Your task to perform on an android device: check out phone information Image 0: 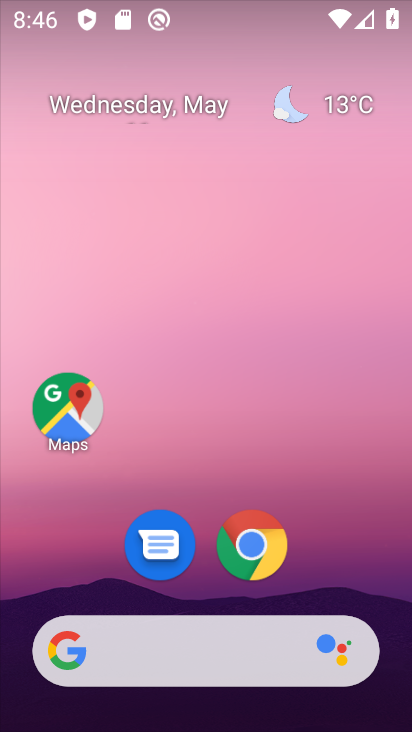
Step 0: drag from (320, 572) to (246, 15)
Your task to perform on an android device: check out phone information Image 1: 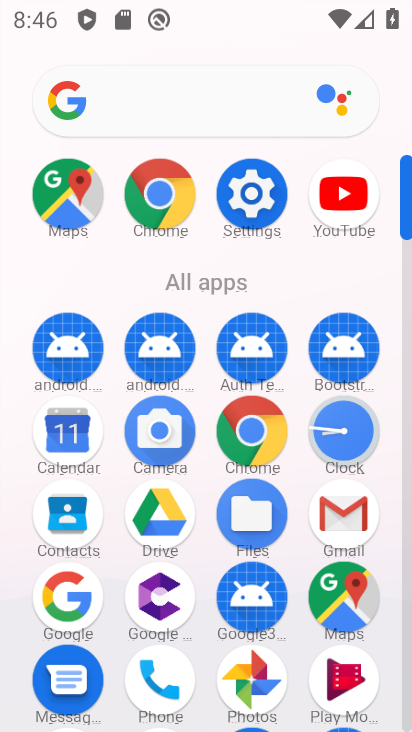
Step 1: click (245, 192)
Your task to perform on an android device: check out phone information Image 2: 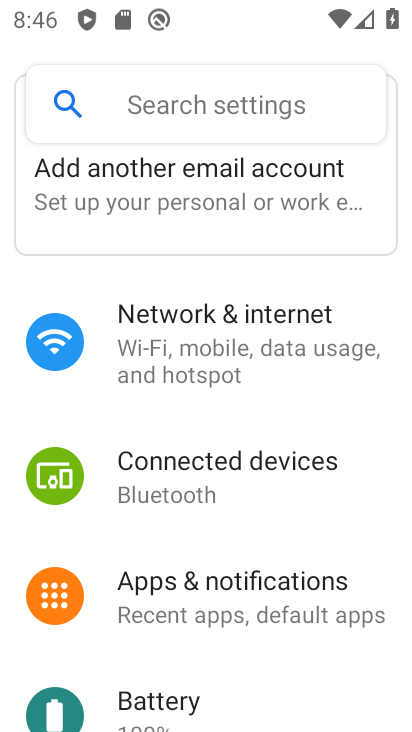
Step 2: drag from (295, 583) to (289, 101)
Your task to perform on an android device: check out phone information Image 3: 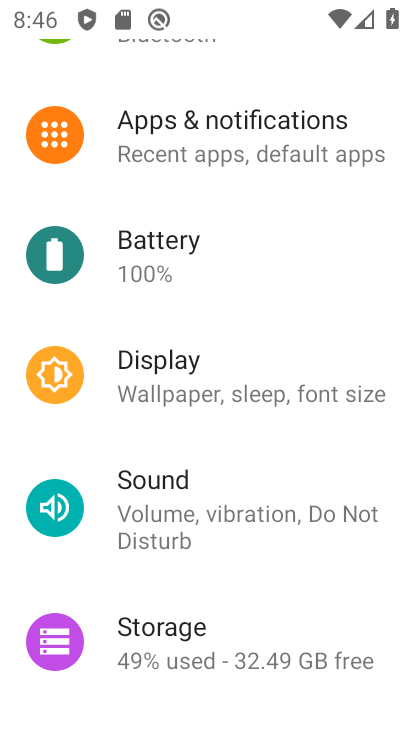
Step 3: drag from (249, 597) to (249, 214)
Your task to perform on an android device: check out phone information Image 4: 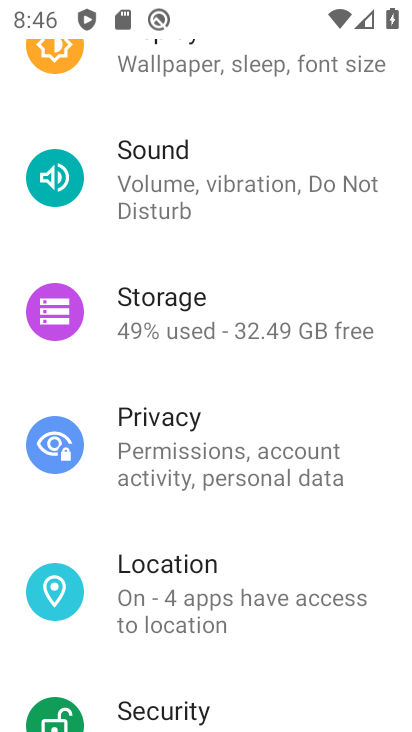
Step 4: drag from (274, 627) to (274, 161)
Your task to perform on an android device: check out phone information Image 5: 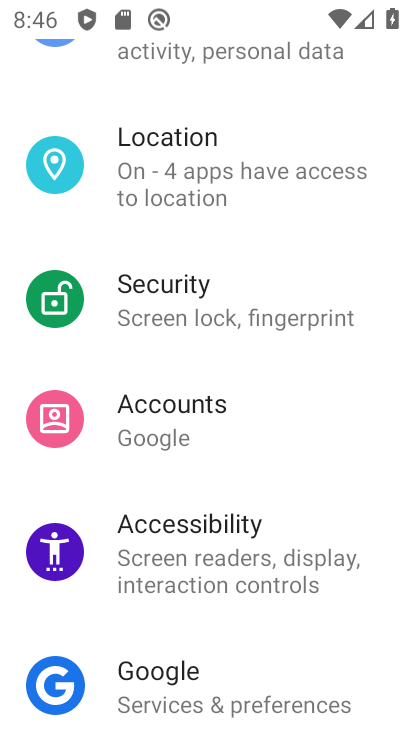
Step 5: drag from (264, 618) to (274, 130)
Your task to perform on an android device: check out phone information Image 6: 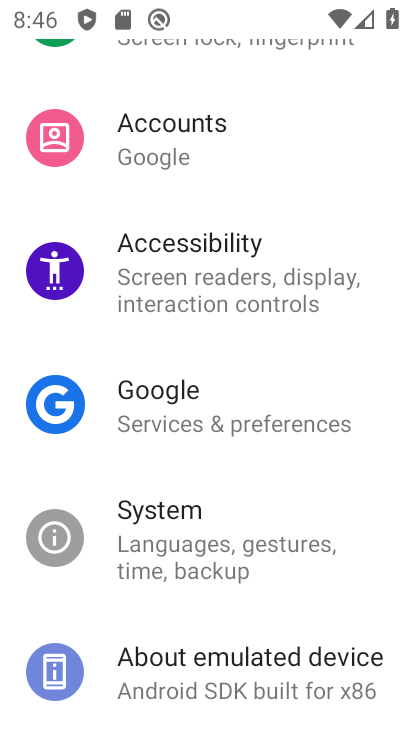
Step 6: click (220, 677)
Your task to perform on an android device: check out phone information Image 7: 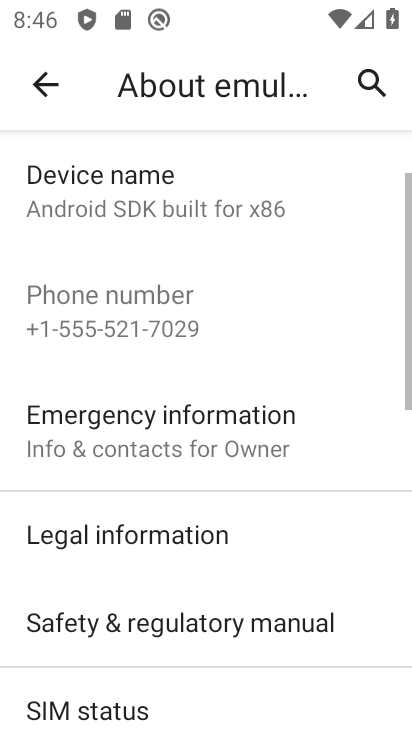
Step 7: drag from (259, 574) to (293, 184)
Your task to perform on an android device: check out phone information Image 8: 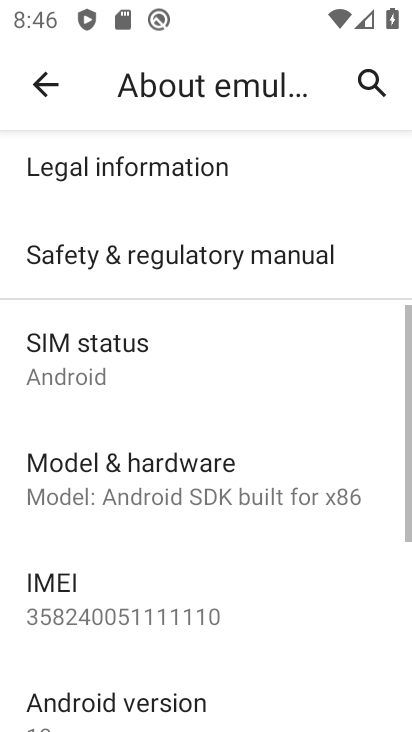
Step 8: drag from (247, 589) to (268, 185)
Your task to perform on an android device: check out phone information Image 9: 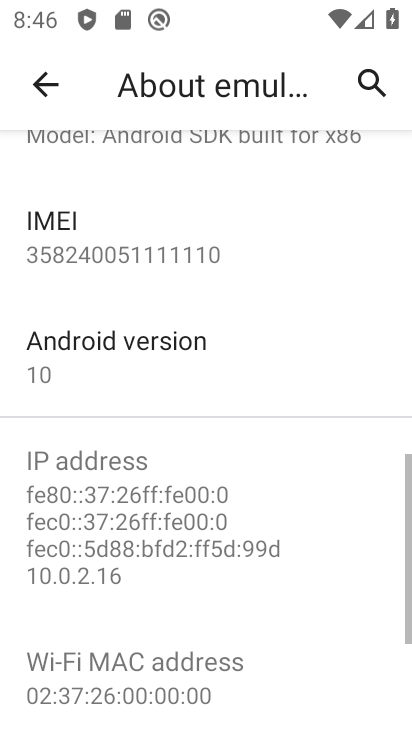
Step 9: drag from (236, 592) to (271, 194)
Your task to perform on an android device: check out phone information Image 10: 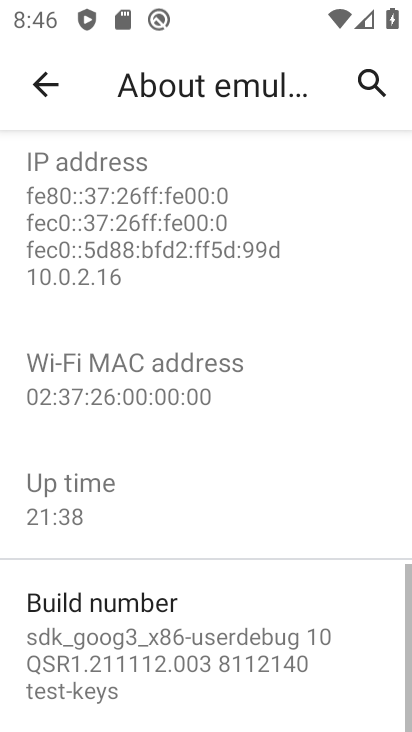
Step 10: drag from (260, 562) to (260, 246)
Your task to perform on an android device: check out phone information Image 11: 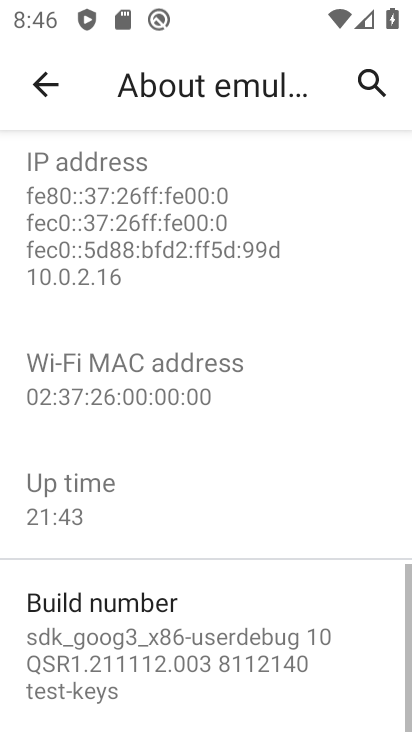
Step 11: drag from (264, 616) to (272, 164)
Your task to perform on an android device: check out phone information Image 12: 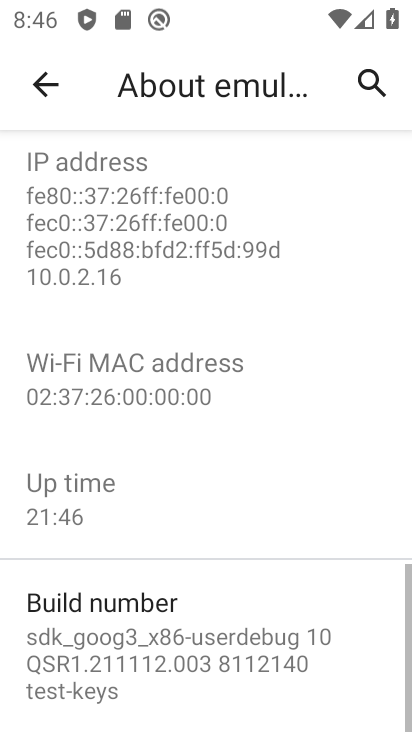
Step 12: drag from (283, 192) to (276, 613)
Your task to perform on an android device: check out phone information Image 13: 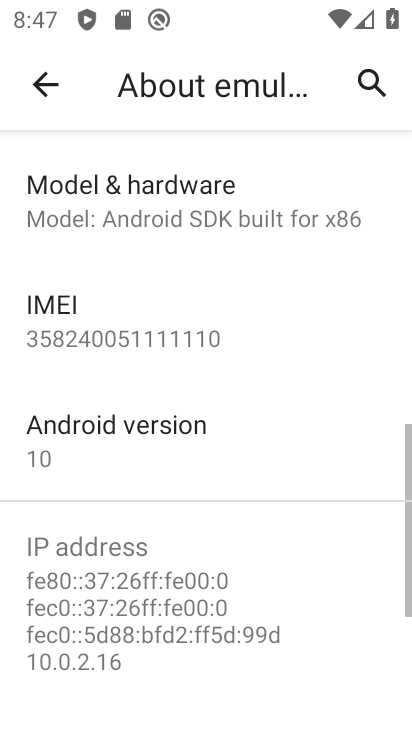
Step 13: drag from (297, 239) to (305, 613)
Your task to perform on an android device: check out phone information Image 14: 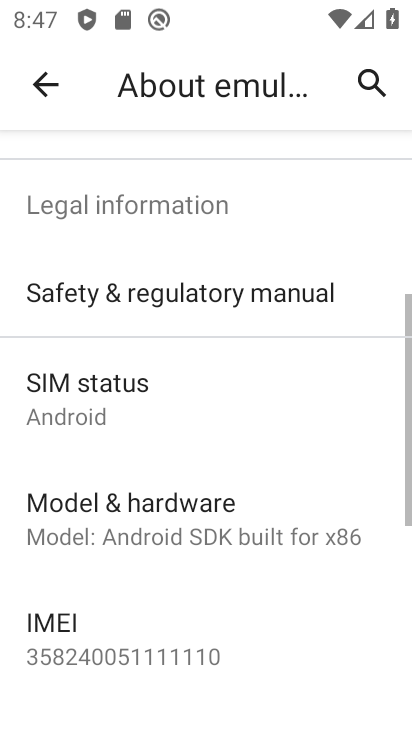
Step 14: drag from (294, 246) to (295, 594)
Your task to perform on an android device: check out phone information Image 15: 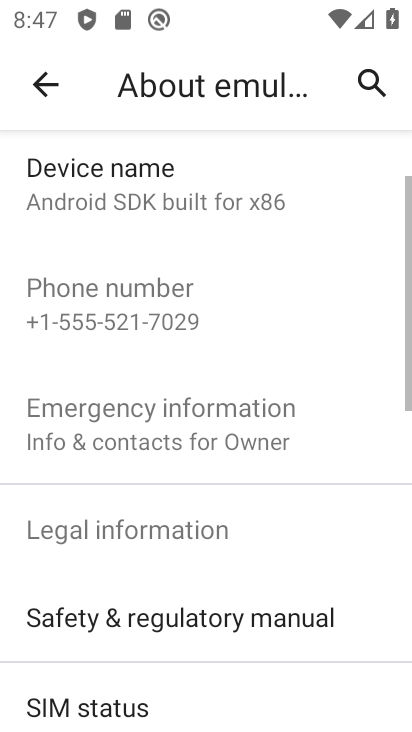
Step 15: drag from (291, 292) to (289, 589)
Your task to perform on an android device: check out phone information Image 16: 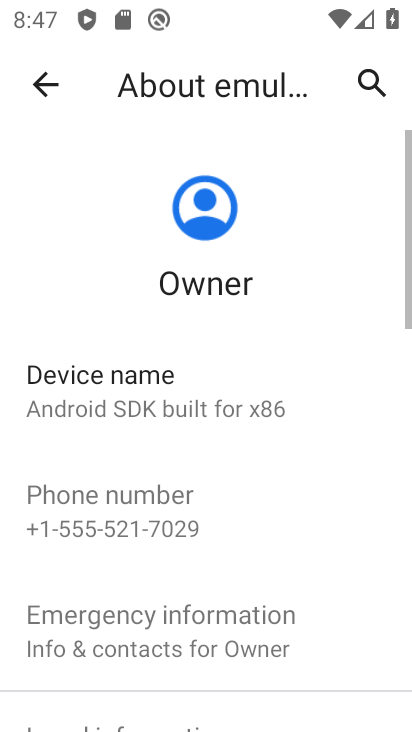
Step 16: drag from (256, 474) to (275, 100)
Your task to perform on an android device: check out phone information Image 17: 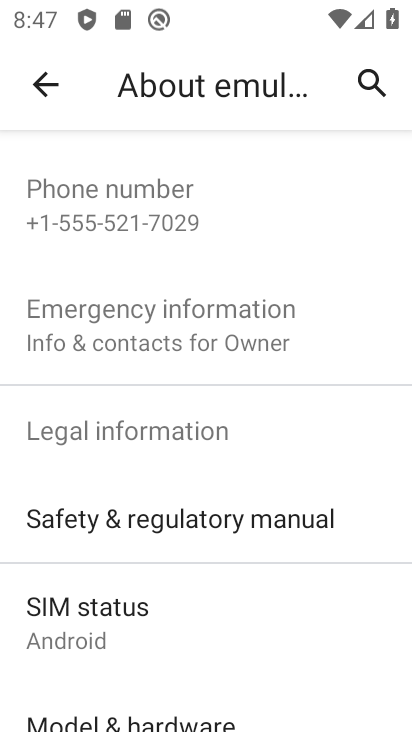
Step 17: drag from (280, 512) to (299, 158)
Your task to perform on an android device: check out phone information Image 18: 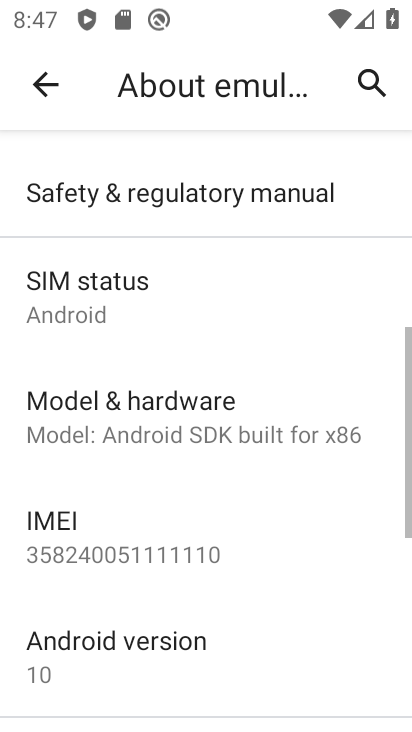
Step 18: drag from (259, 555) to (297, 195)
Your task to perform on an android device: check out phone information Image 19: 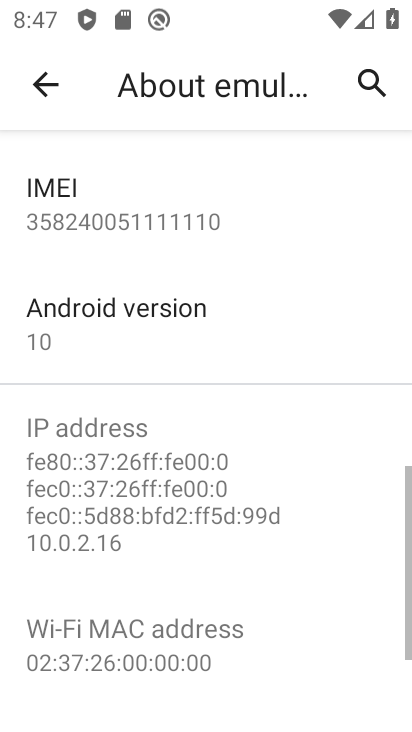
Step 19: click (47, 80)
Your task to perform on an android device: check out phone information Image 20: 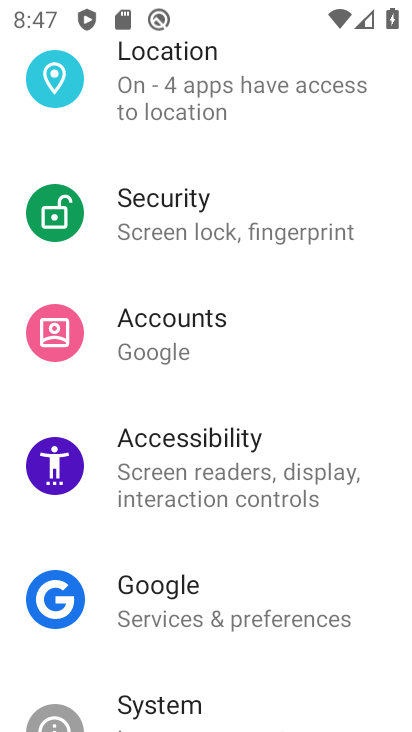
Step 20: drag from (290, 550) to (282, 143)
Your task to perform on an android device: check out phone information Image 21: 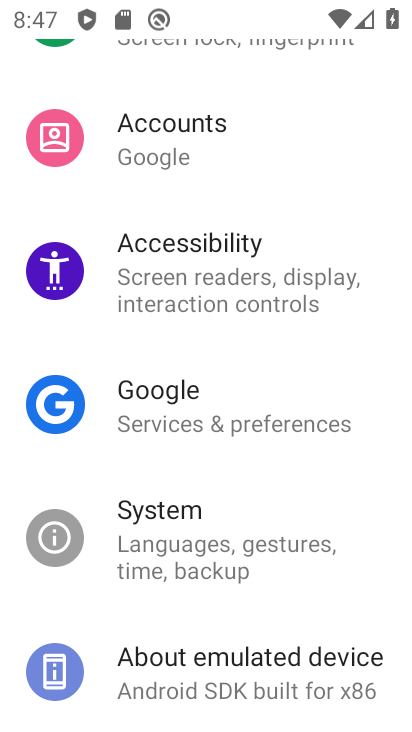
Step 21: click (222, 670)
Your task to perform on an android device: check out phone information Image 22: 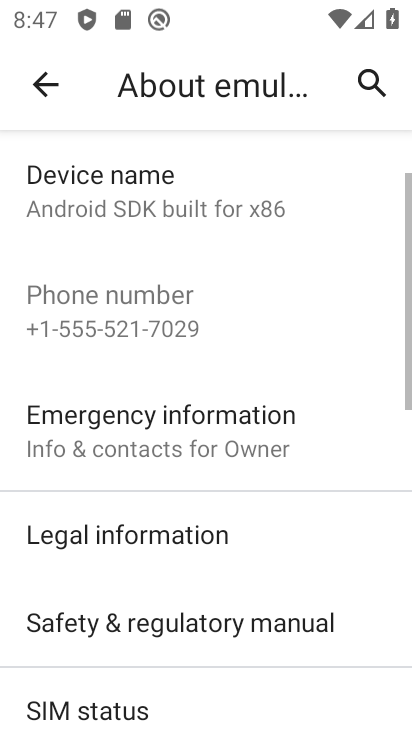
Step 22: task complete